Your task to perform on an android device: toggle data saver in the chrome app Image 0: 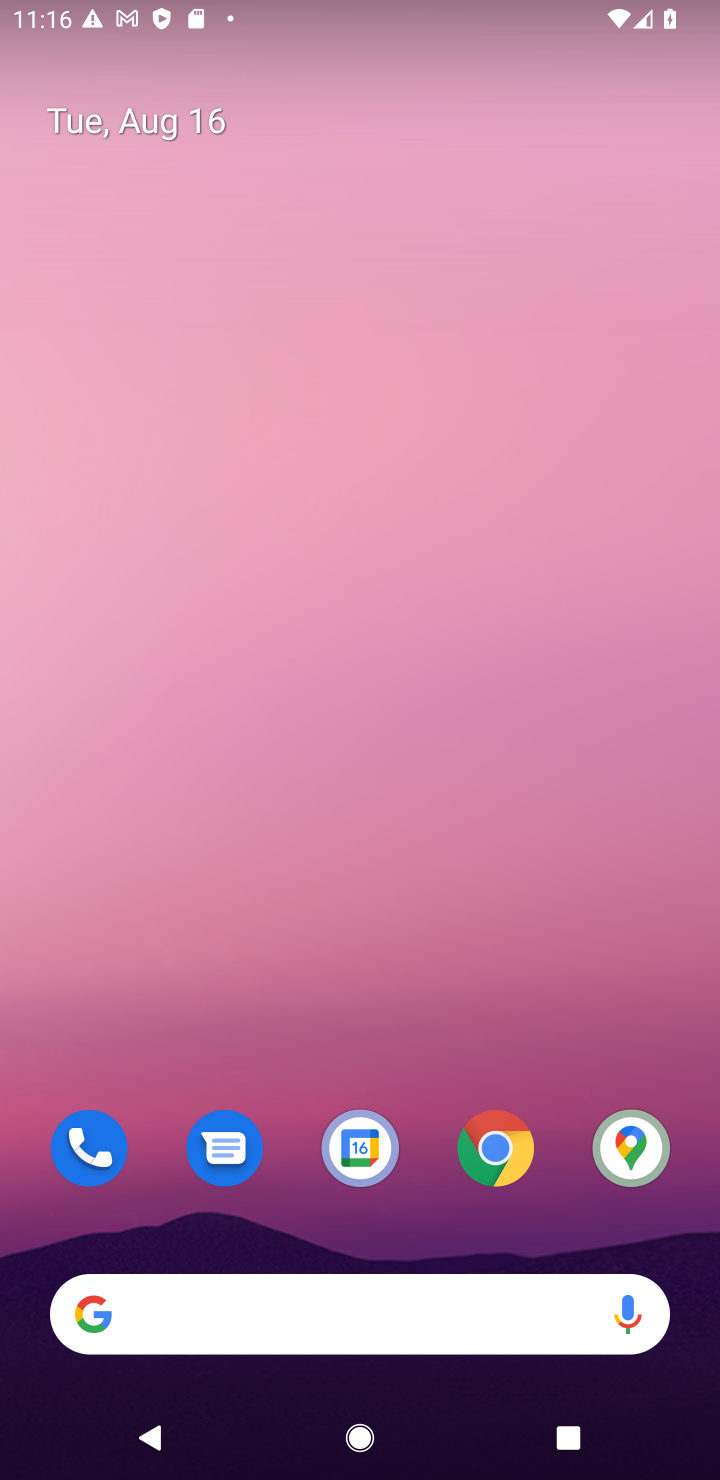
Step 0: drag from (451, 1054) to (523, 26)
Your task to perform on an android device: toggle data saver in the chrome app Image 1: 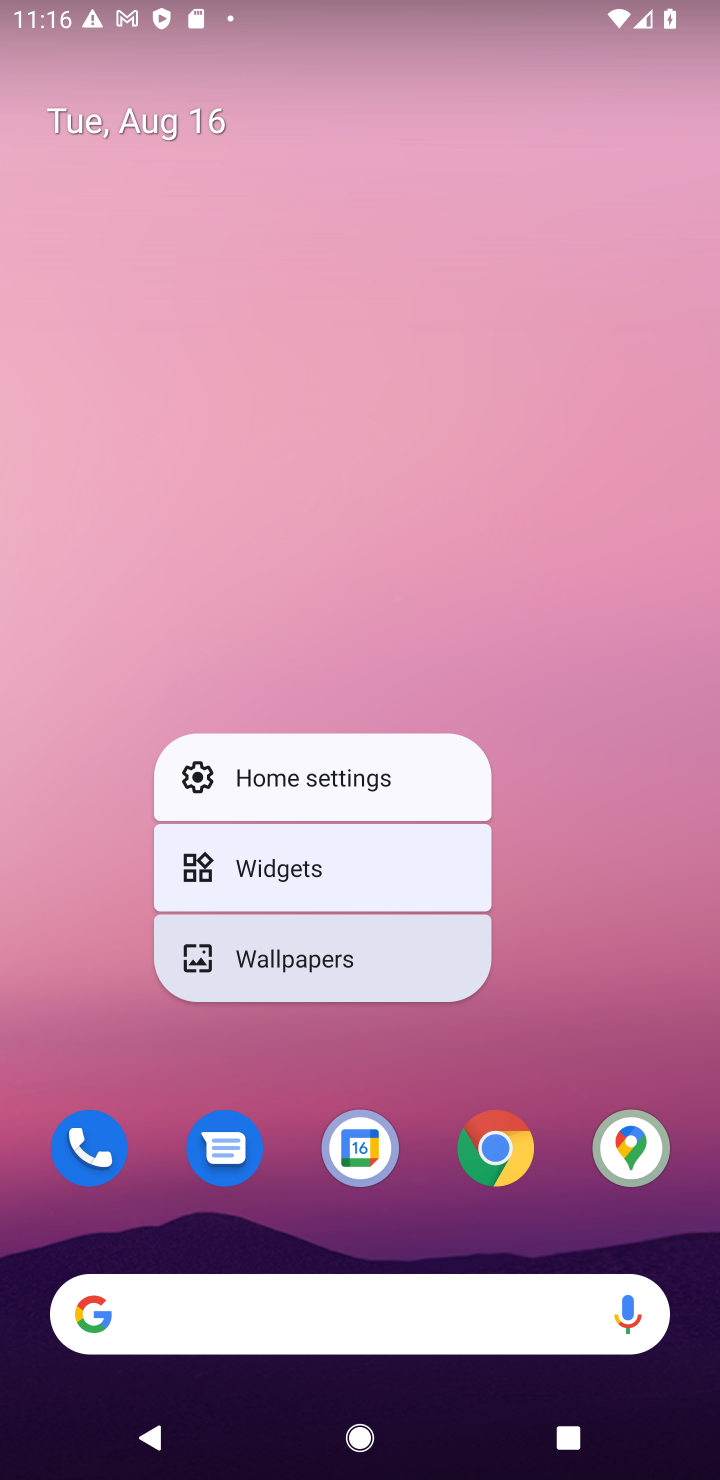
Step 1: click (478, 1142)
Your task to perform on an android device: toggle data saver in the chrome app Image 2: 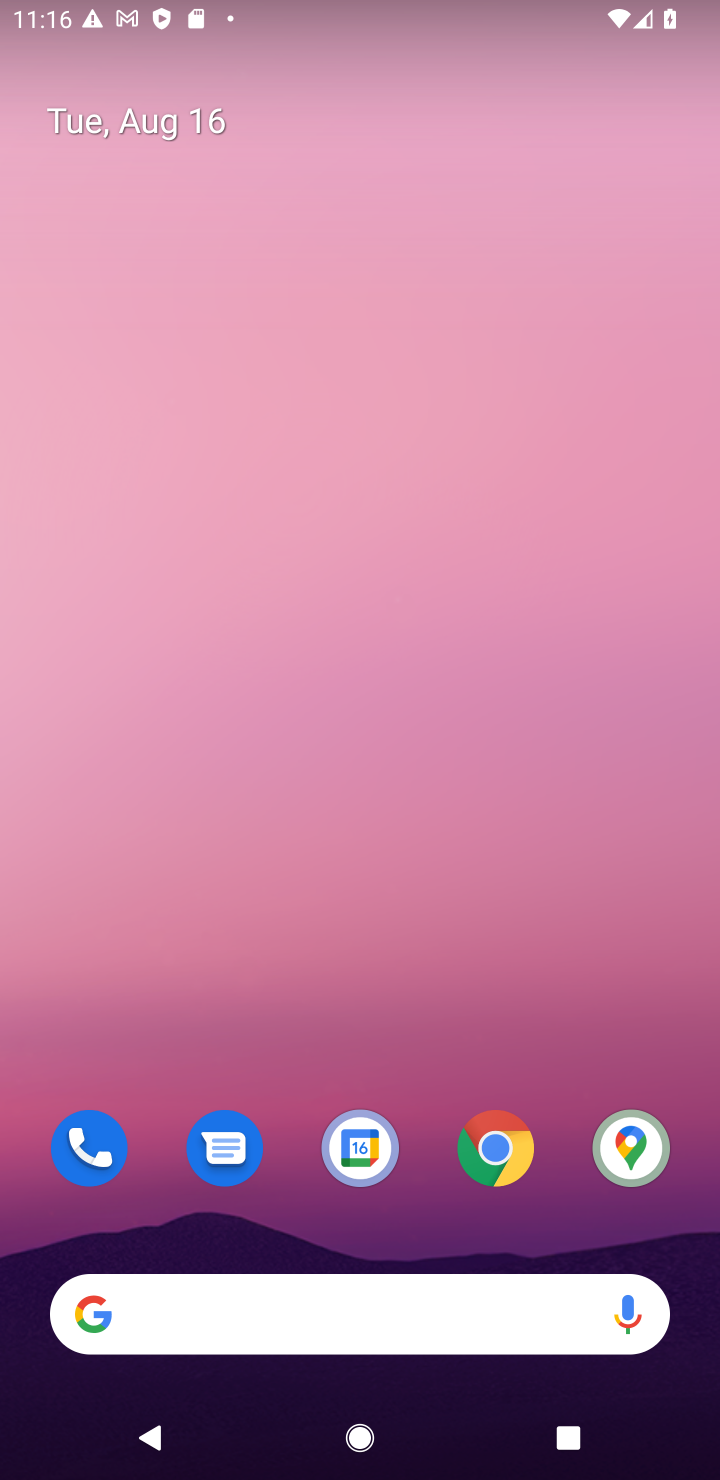
Step 2: click (504, 1149)
Your task to perform on an android device: toggle data saver in the chrome app Image 3: 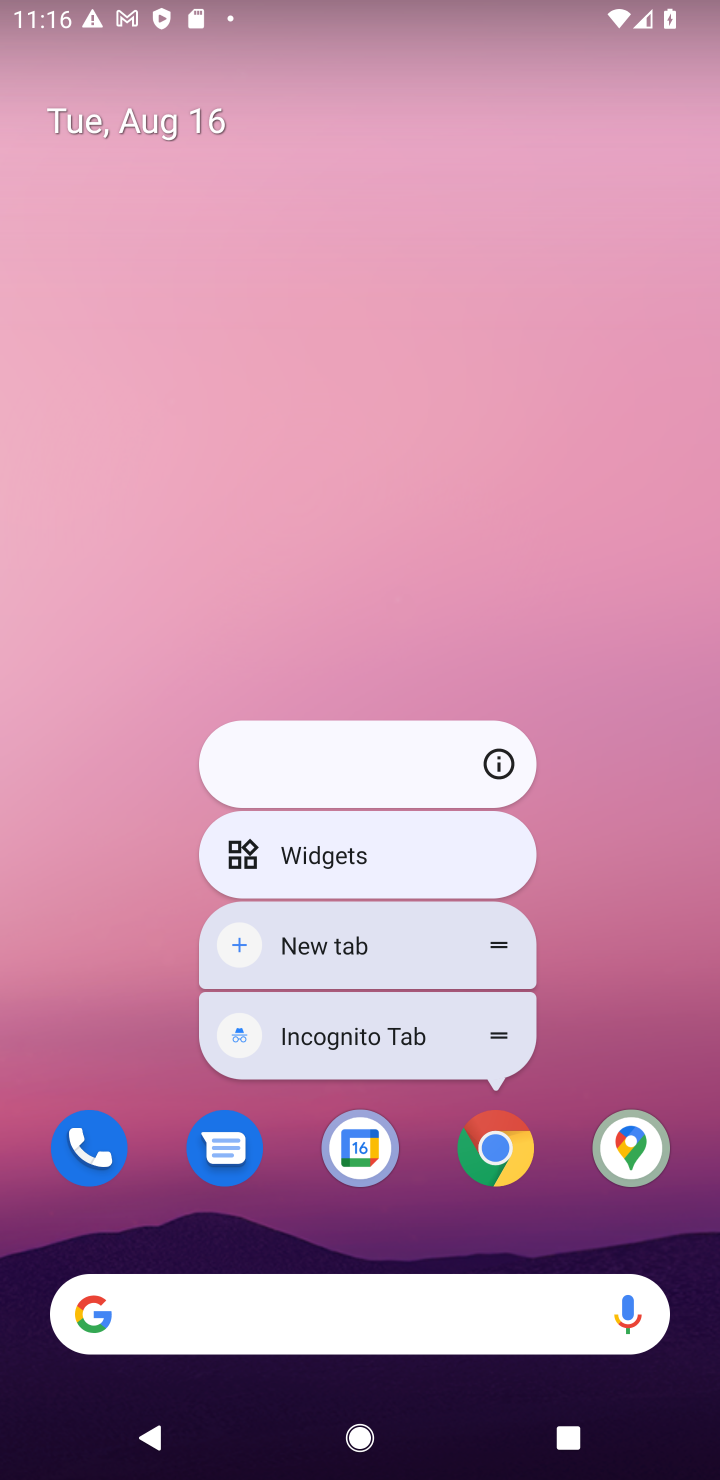
Step 3: click (504, 1149)
Your task to perform on an android device: toggle data saver in the chrome app Image 4: 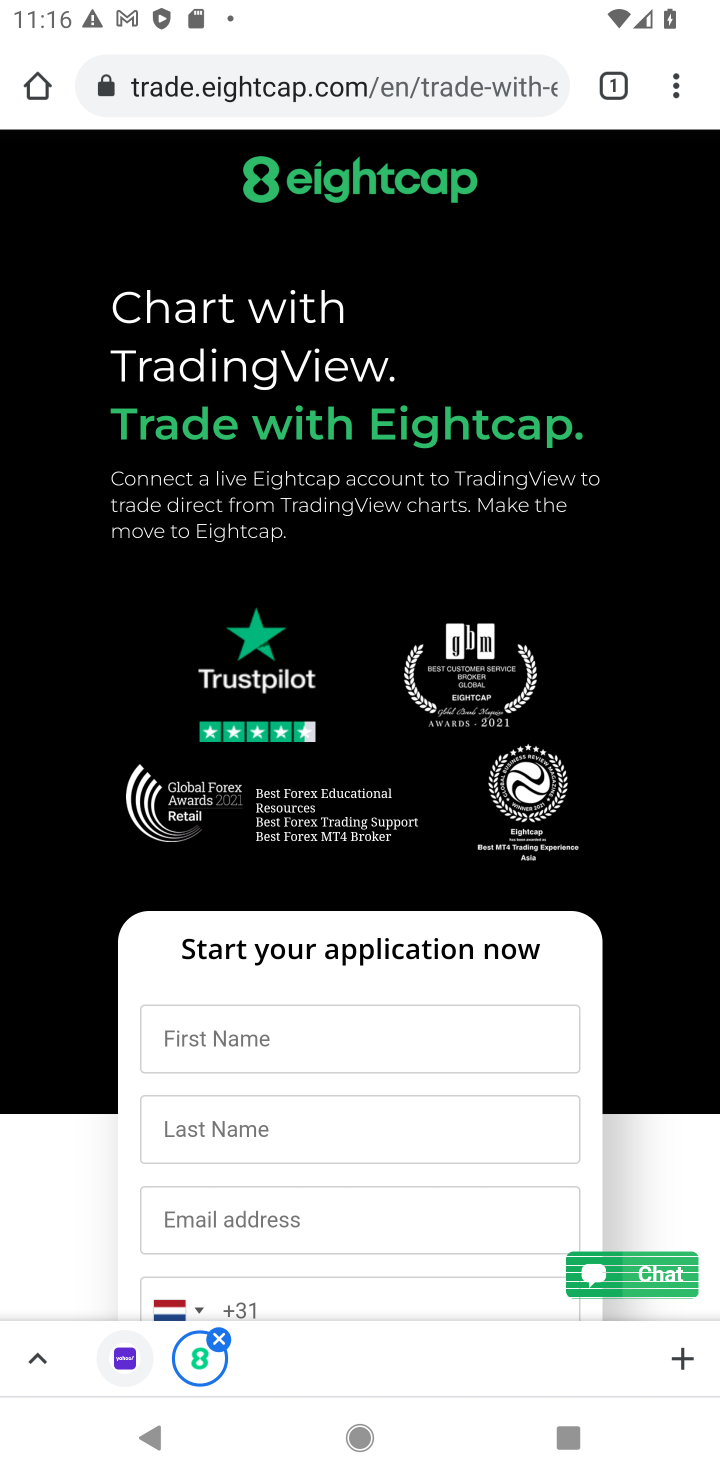
Step 4: drag from (692, 77) to (450, 1146)
Your task to perform on an android device: toggle data saver in the chrome app Image 5: 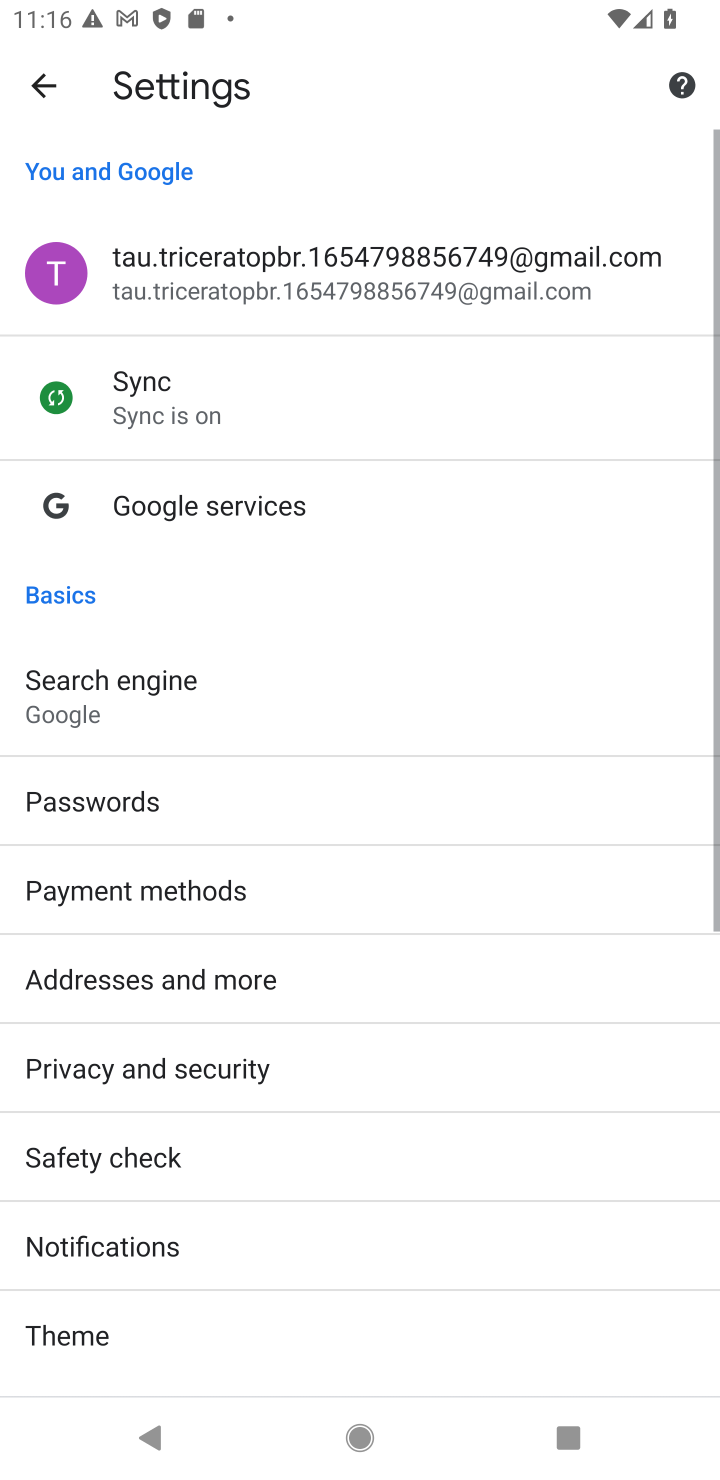
Step 5: drag from (245, 1163) to (163, 219)
Your task to perform on an android device: toggle data saver in the chrome app Image 6: 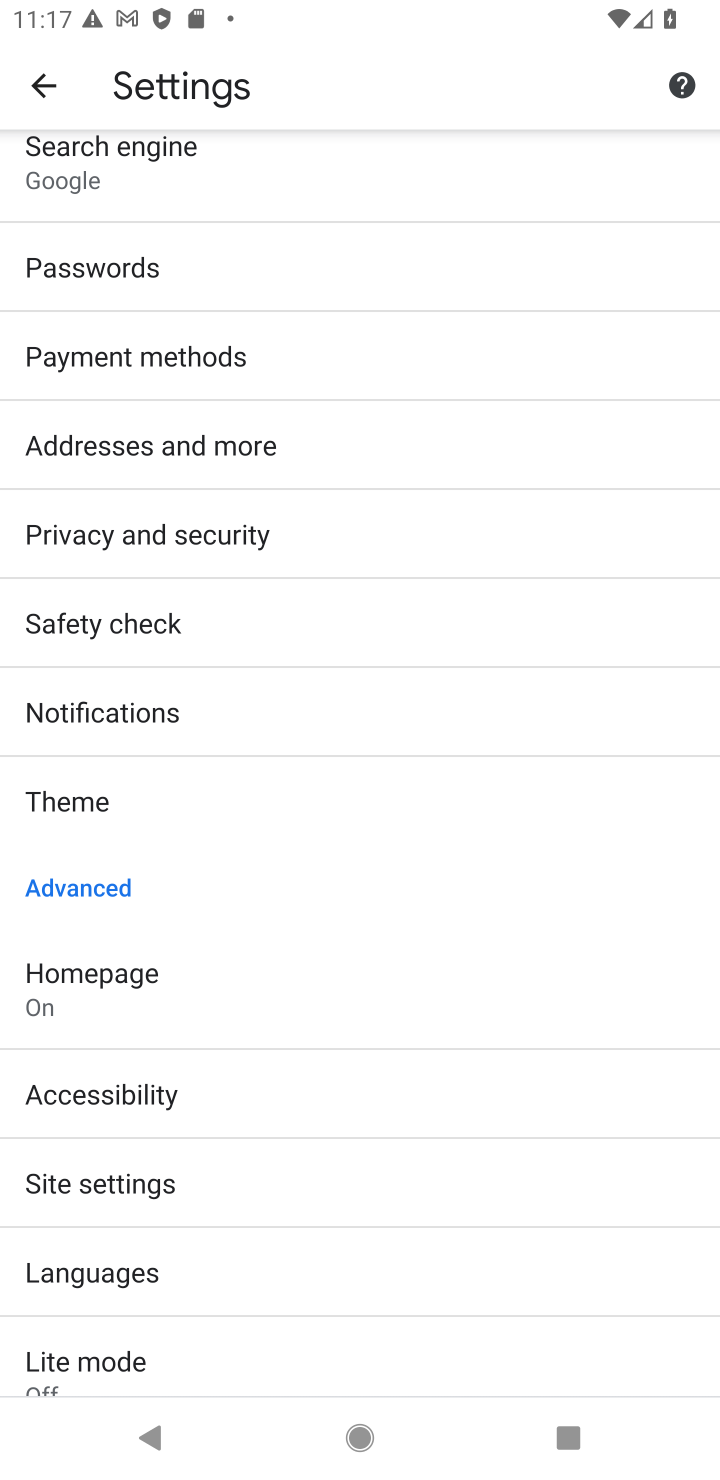
Step 6: click (107, 1366)
Your task to perform on an android device: toggle data saver in the chrome app Image 7: 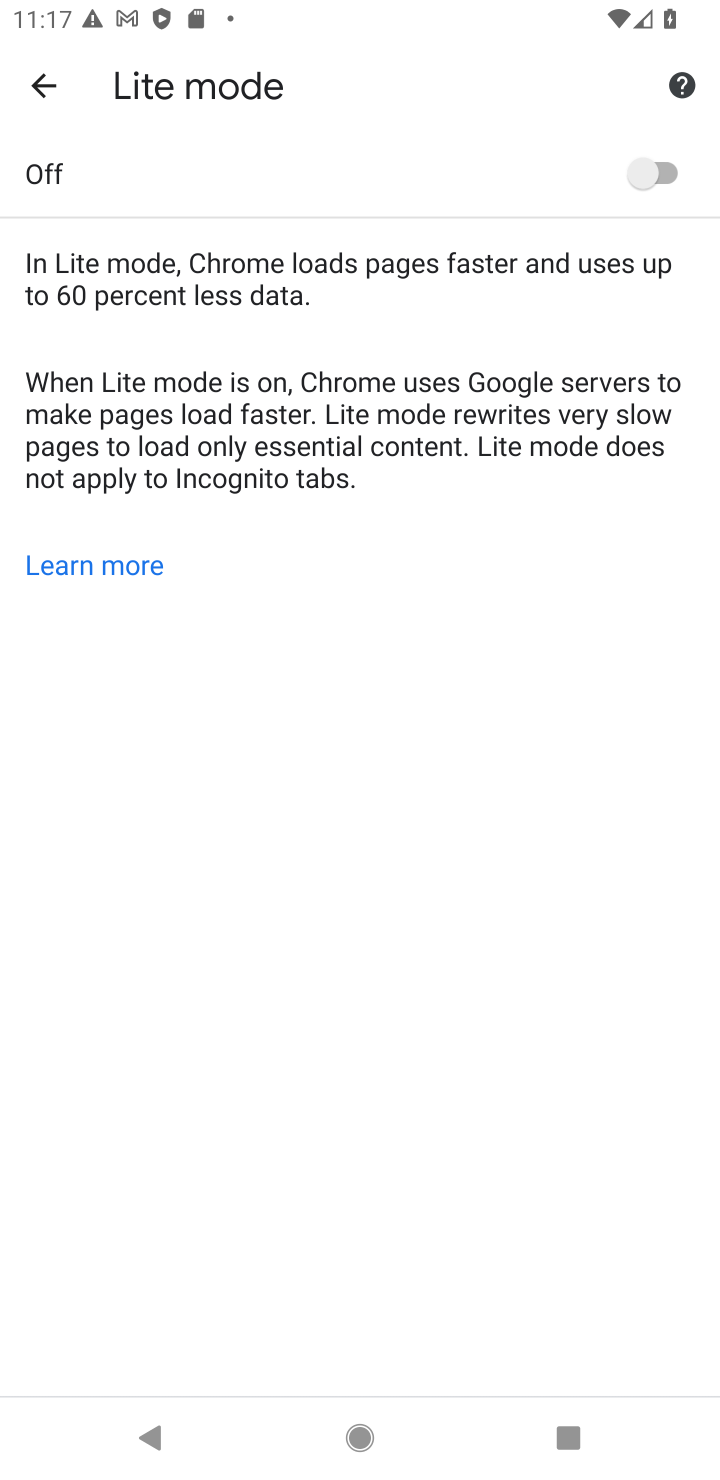
Step 7: click (633, 166)
Your task to perform on an android device: toggle data saver in the chrome app Image 8: 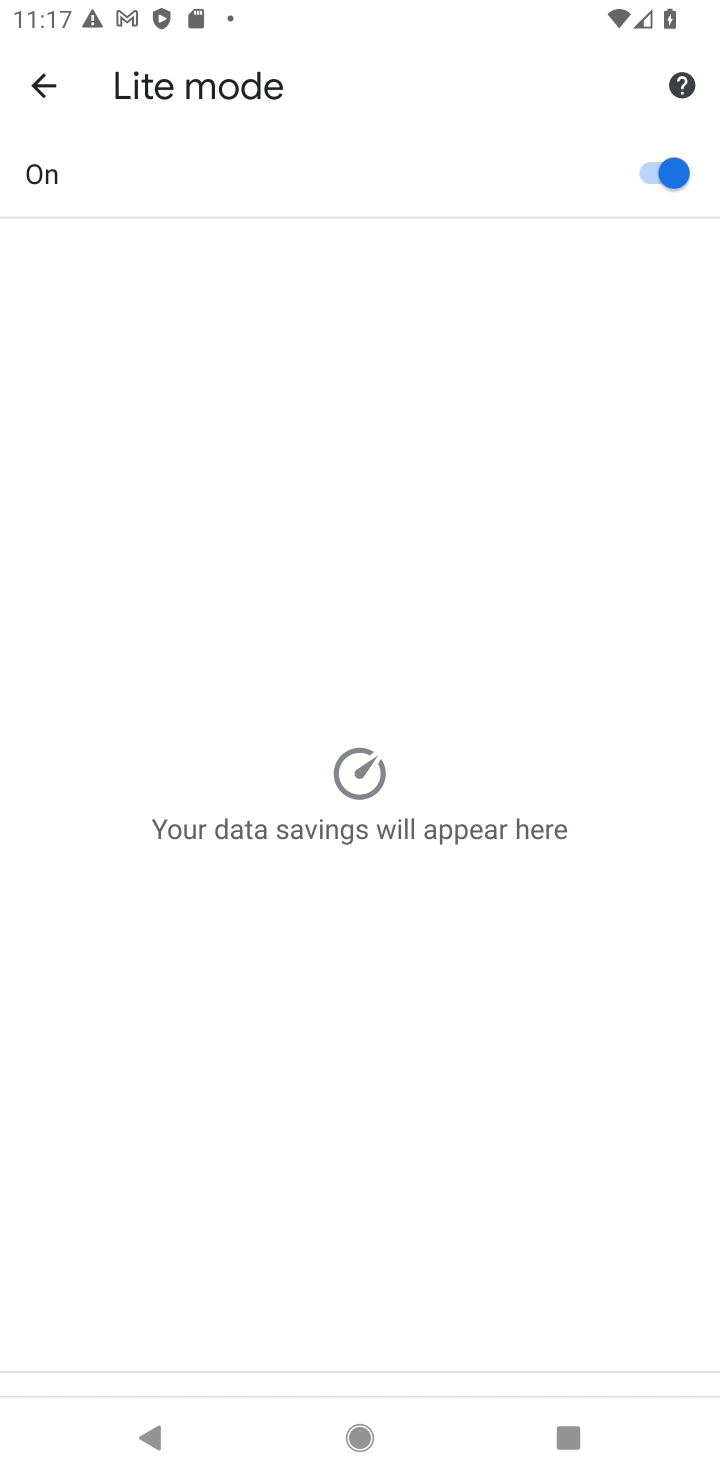
Step 8: task complete